Your task to perform on an android device: check out phone information Image 0: 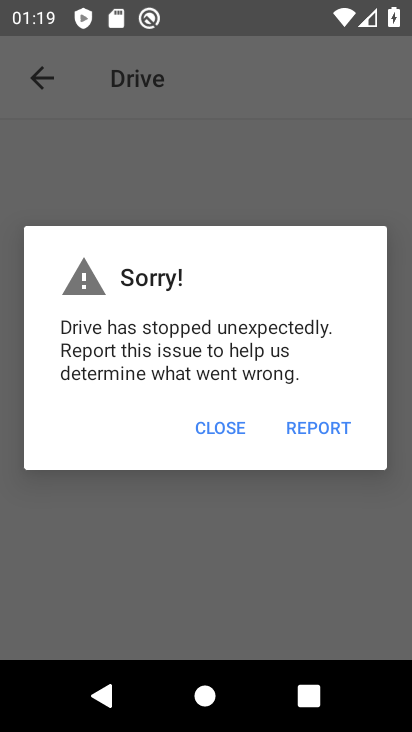
Step 0: press home button
Your task to perform on an android device: check out phone information Image 1: 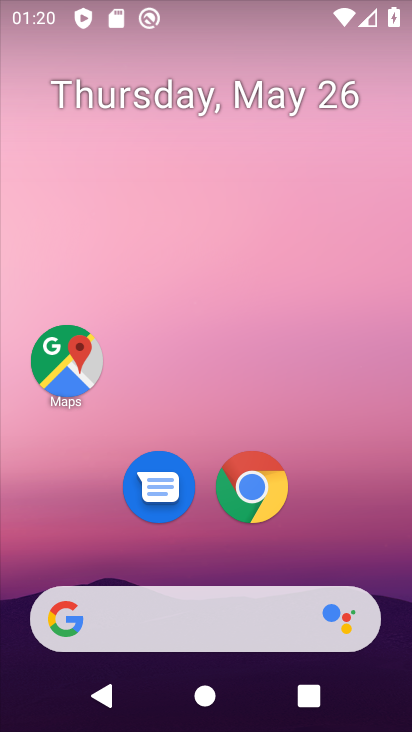
Step 1: drag from (184, 617) to (211, 80)
Your task to perform on an android device: check out phone information Image 2: 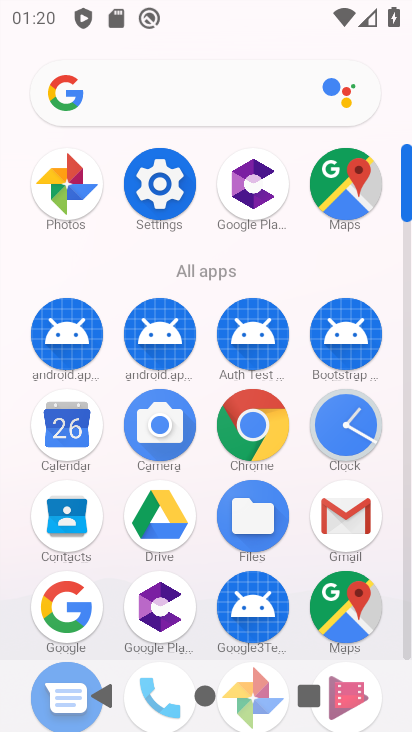
Step 2: click (151, 176)
Your task to perform on an android device: check out phone information Image 3: 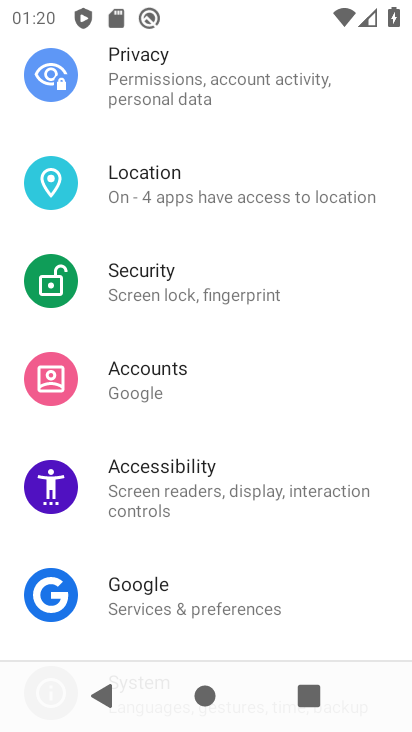
Step 3: drag from (197, 595) to (245, 22)
Your task to perform on an android device: check out phone information Image 4: 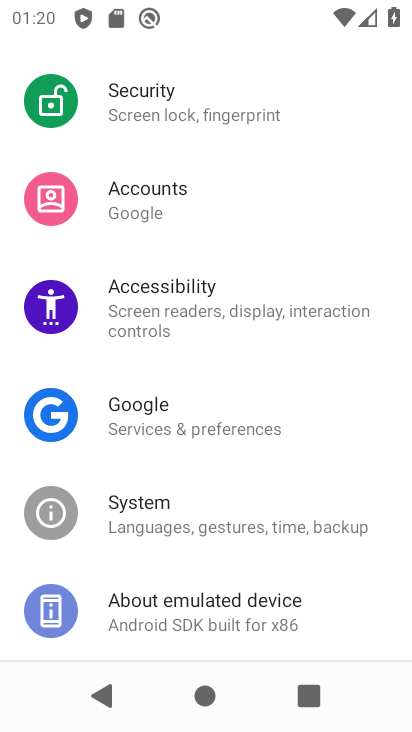
Step 4: click (214, 611)
Your task to perform on an android device: check out phone information Image 5: 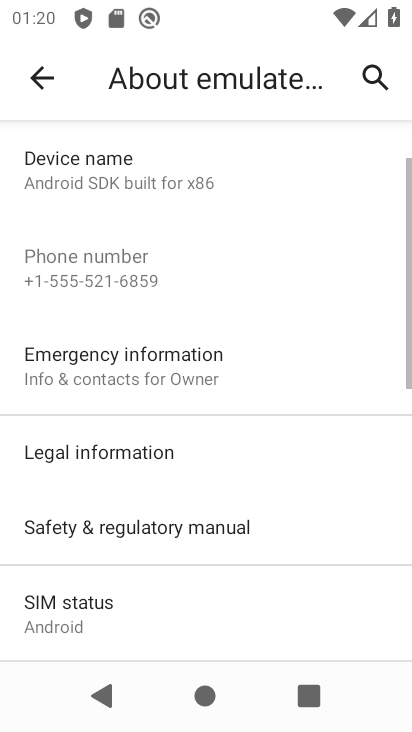
Step 5: task complete